Your task to perform on an android device: Open calendar and show me the fourth week of next month Image 0: 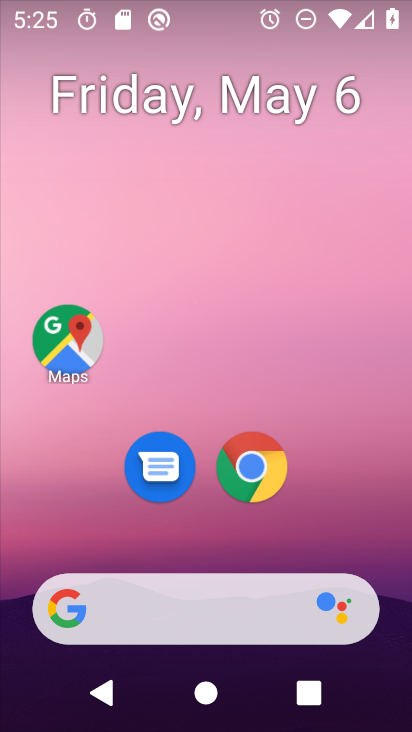
Step 0: drag from (322, 553) to (244, 133)
Your task to perform on an android device: Open calendar and show me the fourth week of next month Image 1: 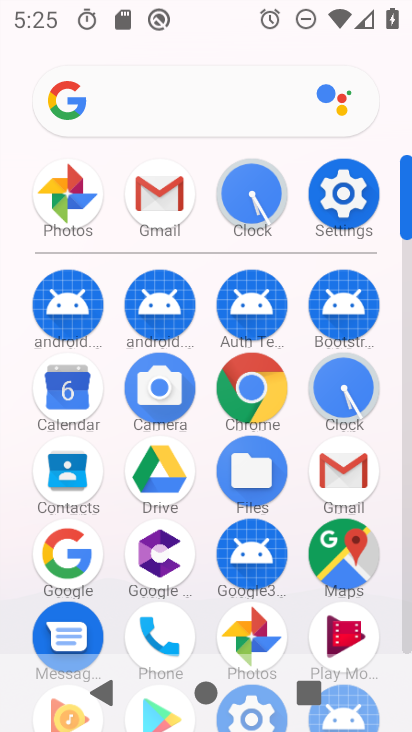
Step 1: click (344, 571)
Your task to perform on an android device: Open calendar and show me the fourth week of next month Image 2: 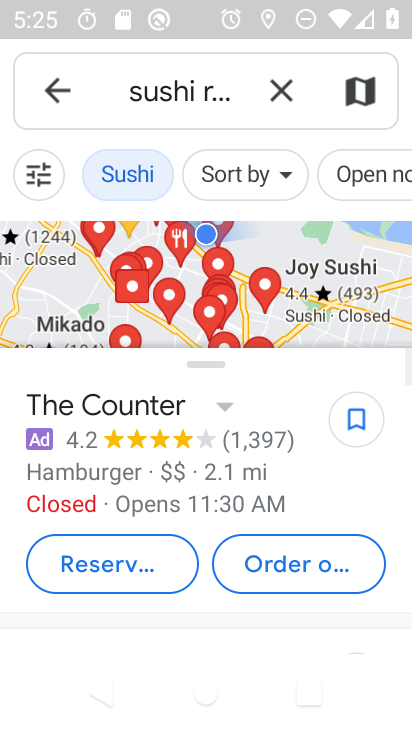
Step 2: press home button
Your task to perform on an android device: Open calendar and show me the fourth week of next month Image 3: 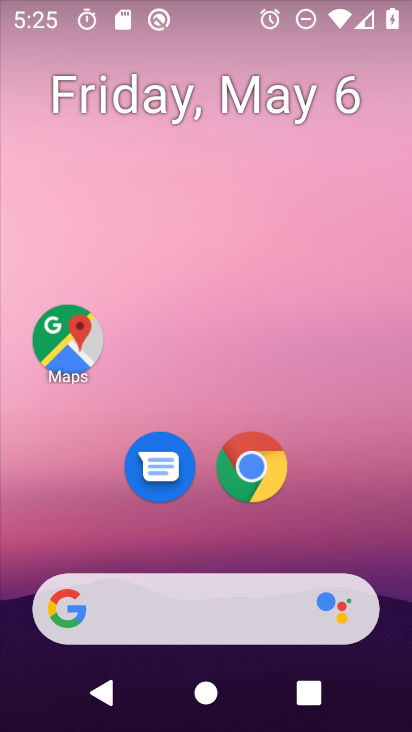
Step 3: drag from (276, 533) to (248, 125)
Your task to perform on an android device: Open calendar and show me the fourth week of next month Image 4: 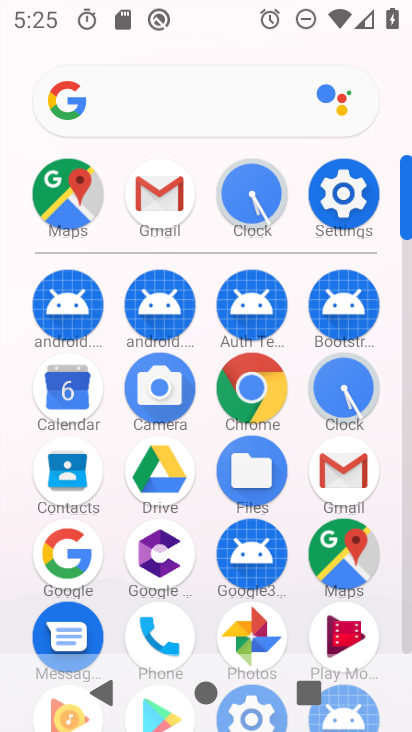
Step 4: click (79, 378)
Your task to perform on an android device: Open calendar and show me the fourth week of next month Image 5: 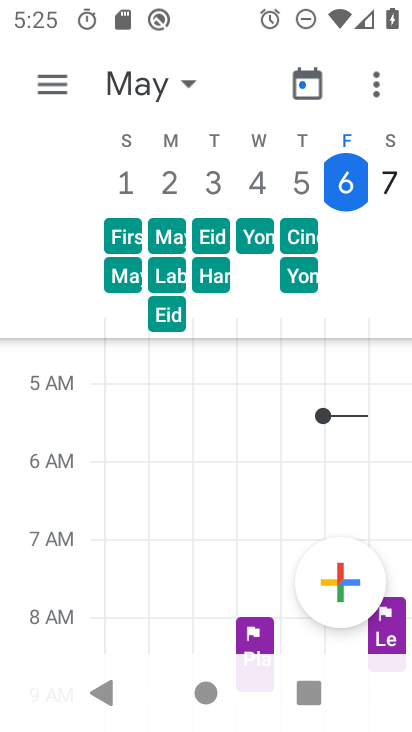
Step 5: click (145, 89)
Your task to perform on an android device: Open calendar and show me the fourth week of next month Image 6: 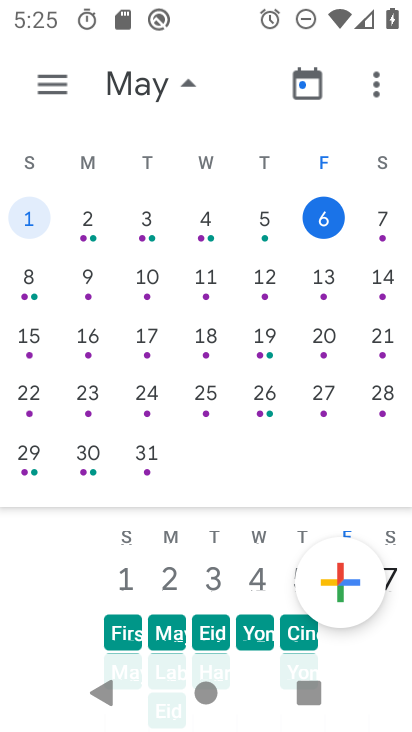
Step 6: drag from (329, 322) to (4, 338)
Your task to perform on an android device: Open calendar and show me the fourth week of next month Image 7: 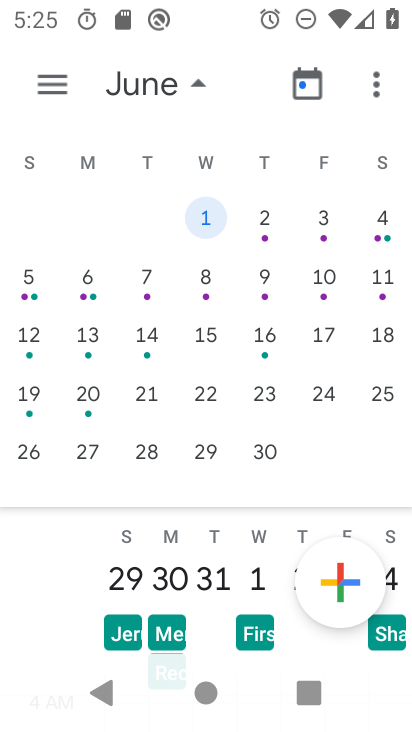
Step 7: click (28, 445)
Your task to perform on an android device: Open calendar and show me the fourth week of next month Image 8: 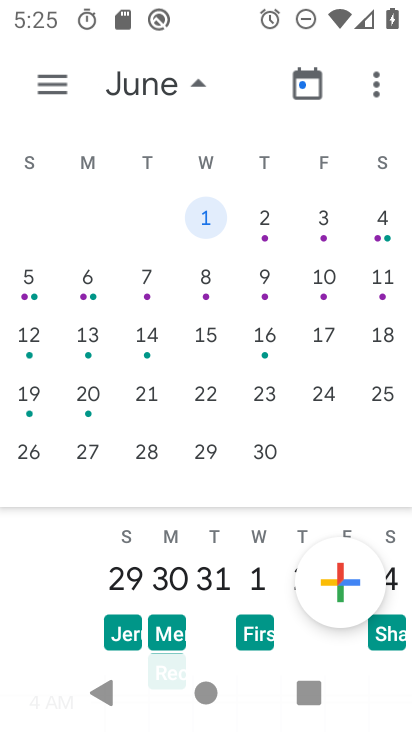
Step 8: click (28, 445)
Your task to perform on an android device: Open calendar and show me the fourth week of next month Image 9: 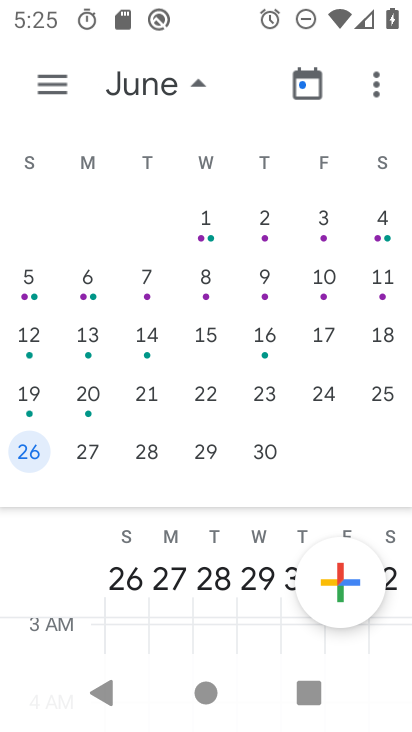
Step 9: task complete